Your task to perform on an android device: Find coffee shops on Maps Image 0: 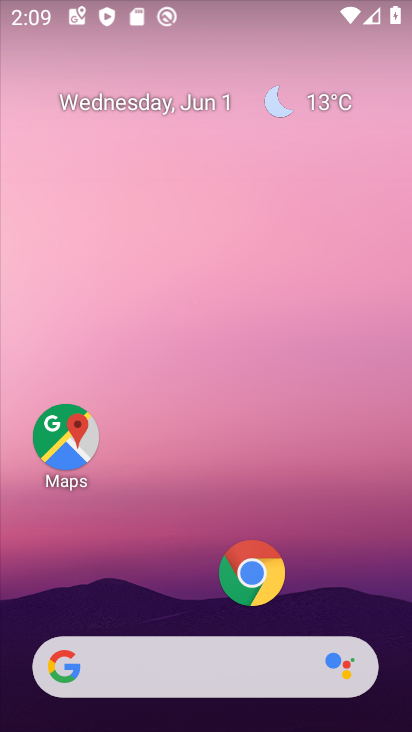
Step 0: drag from (219, 623) to (138, 26)
Your task to perform on an android device: Find coffee shops on Maps Image 1: 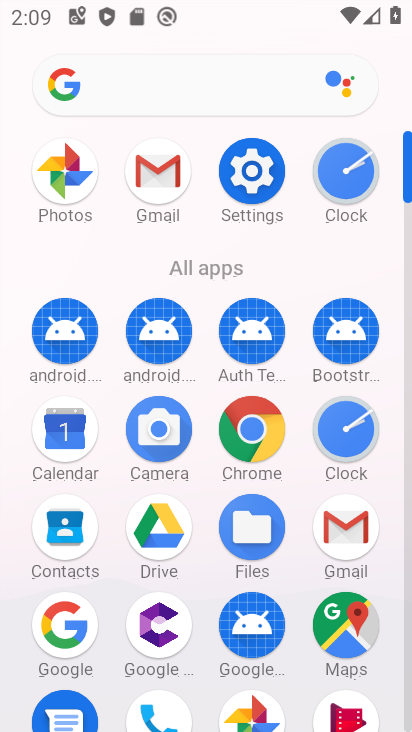
Step 1: click (352, 617)
Your task to perform on an android device: Find coffee shops on Maps Image 2: 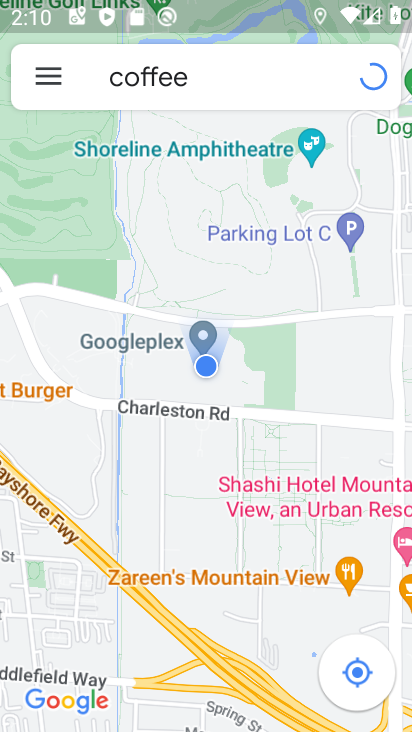
Step 2: click (186, 72)
Your task to perform on an android device: Find coffee shops on Maps Image 3: 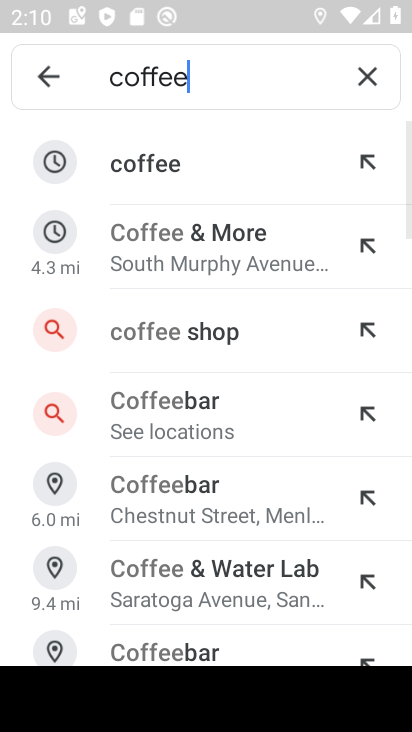
Step 3: click (173, 346)
Your task to perform on an android device: Find coffee shops on Maps Image 4: 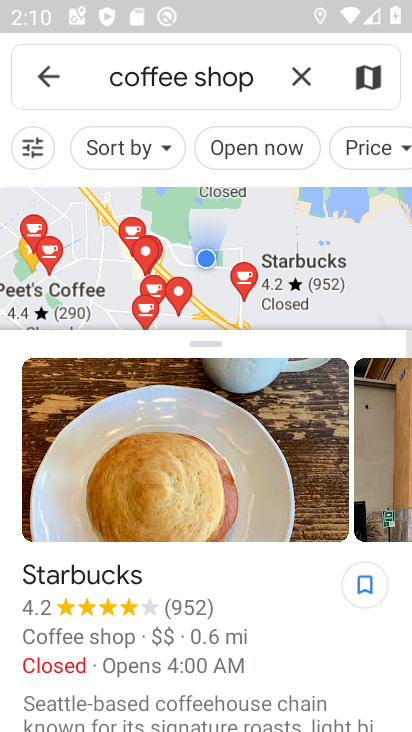
Step 4: task complete